Your task to perform on an android device: How much does the Sony TV cost? Image 0: 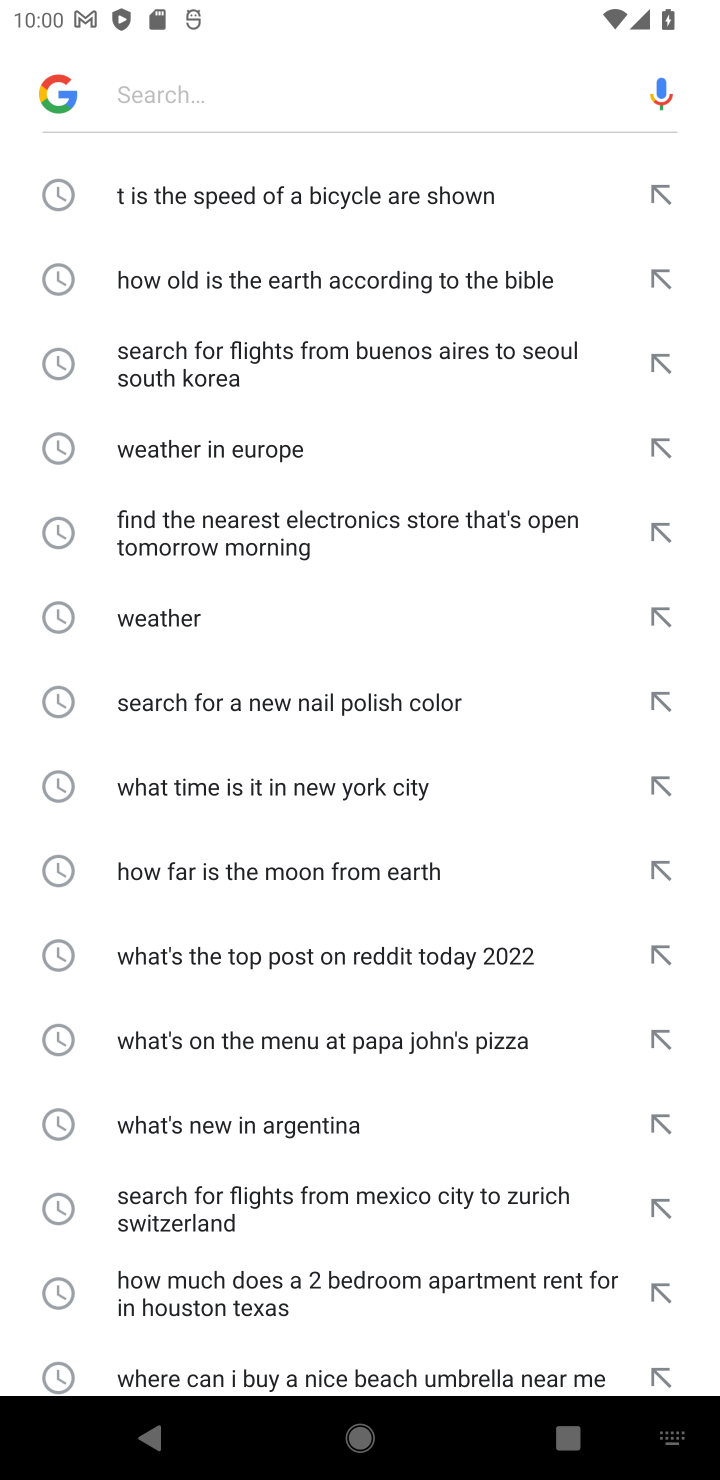
Step 0: type "How much does the Sony TV cost?"
Your task to perform on an android device: How much does the Sony TV cost? Image 1: 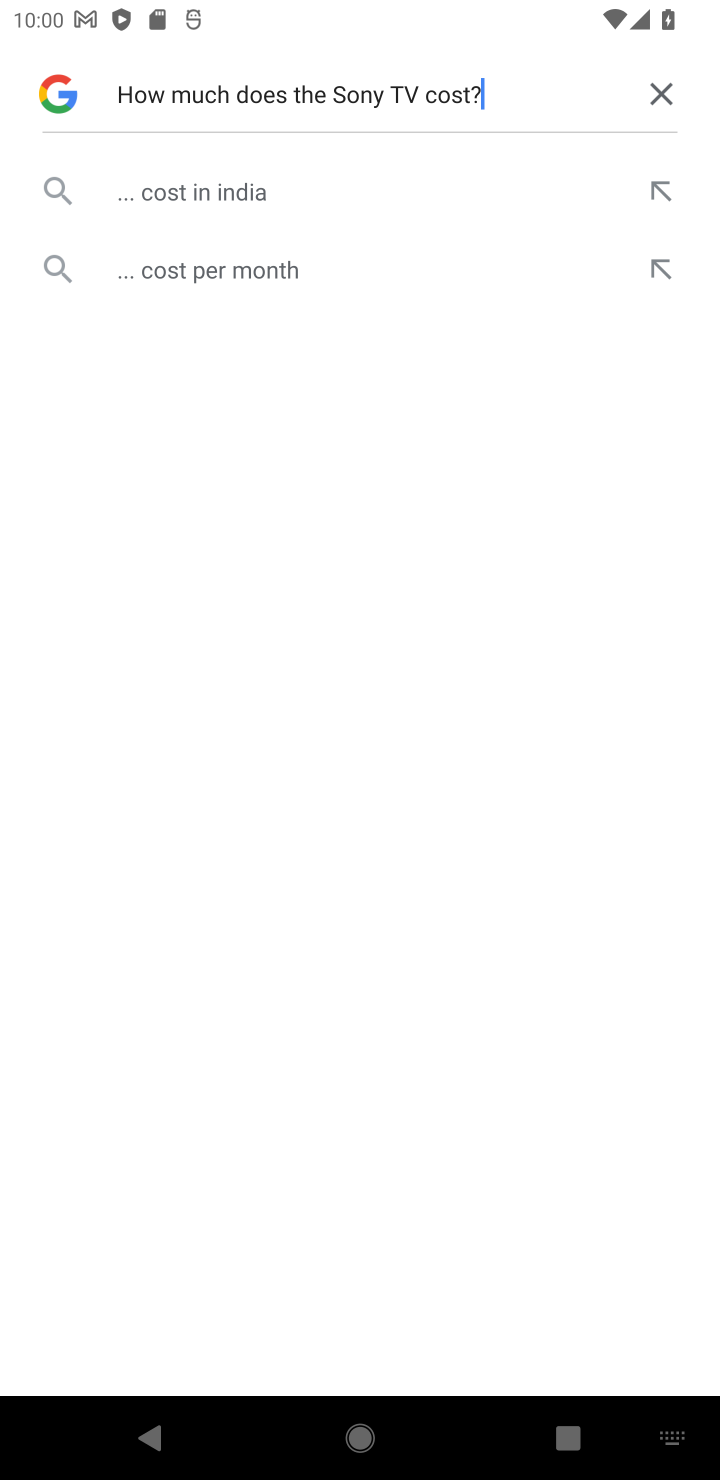
Step 1: click (201, 207)
Your task to perform on an android device: How much does the Sony TV cost? Image 2: 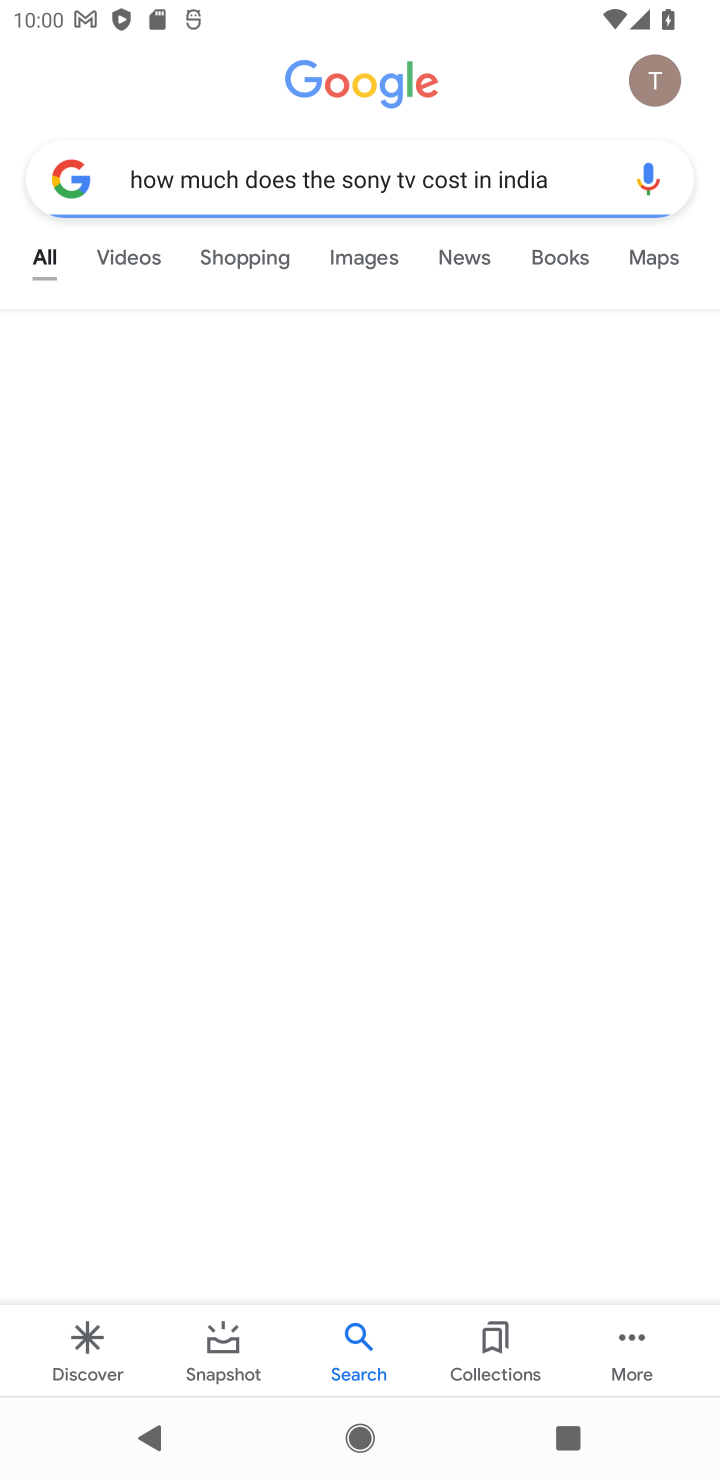
Step 2: task complete